Your task to perform on an android device: star an email in the gmail app Image 0: 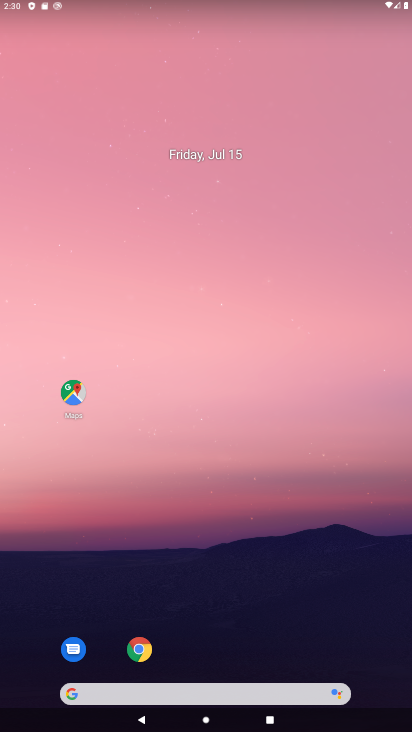
Step 0: drag from (236, 526) to (236, 139)
Your task to perform on an android device: star an email in the gmail app Image 1: 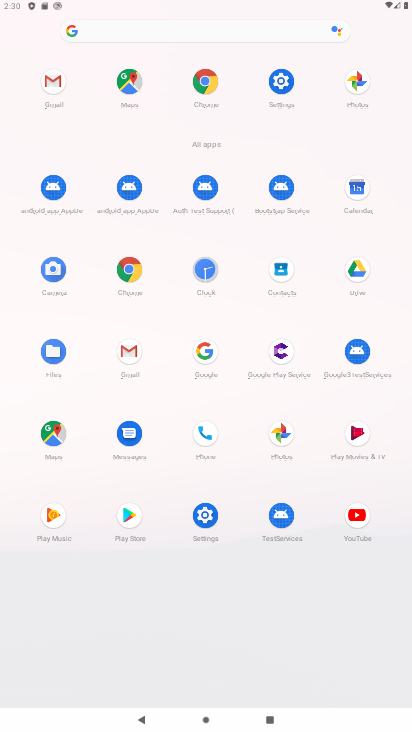
Step 1: click (137, 352)
Your task to perform on an android device: star an email in the gmail app Image 2: 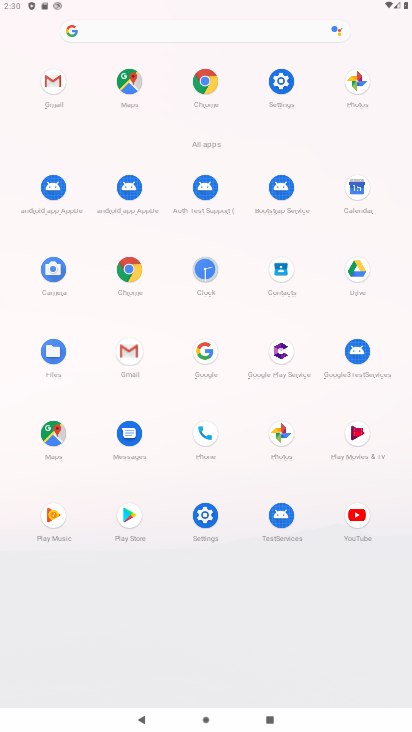
Step 2: click (137, 352)
Your task to perform on an android device: star an email in the gmail app Image 3: 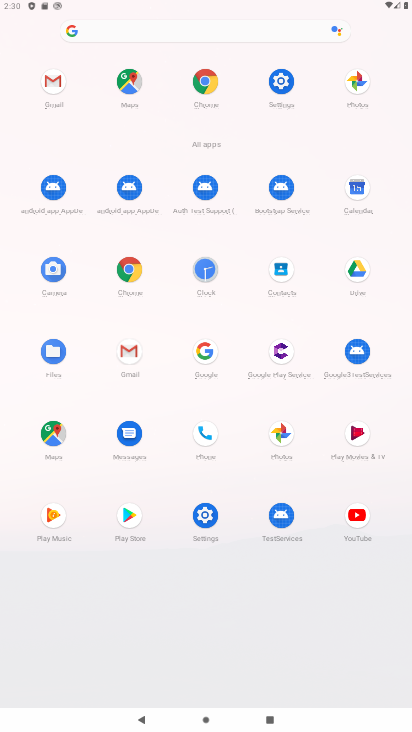
Step 3: click (139, 353)
Your task to perform on an android device: star an email in the gmail app Image 4: 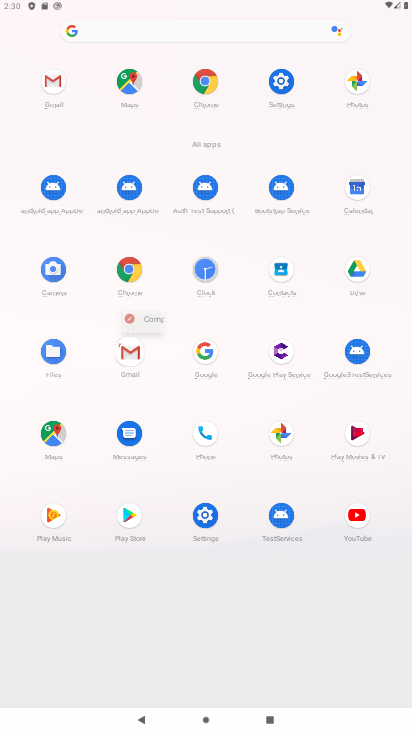
Step 4: click (137, 351)
Your task to perform on an android device: star an email in the gmail app Image 5: 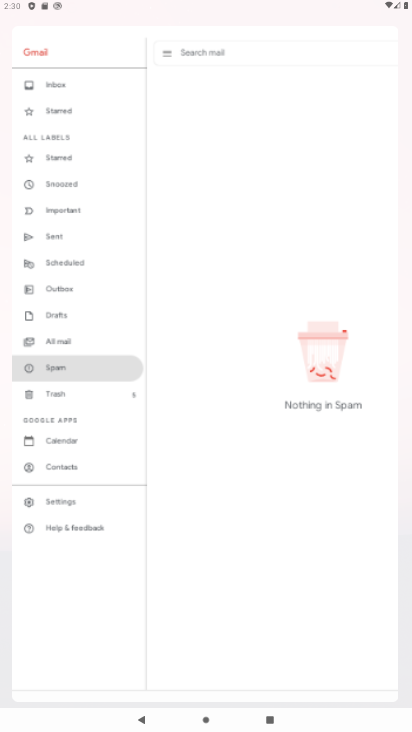
Step 5: click (131, 355)
Your task to perform on an android device: star an email in the gmail app Image 6: 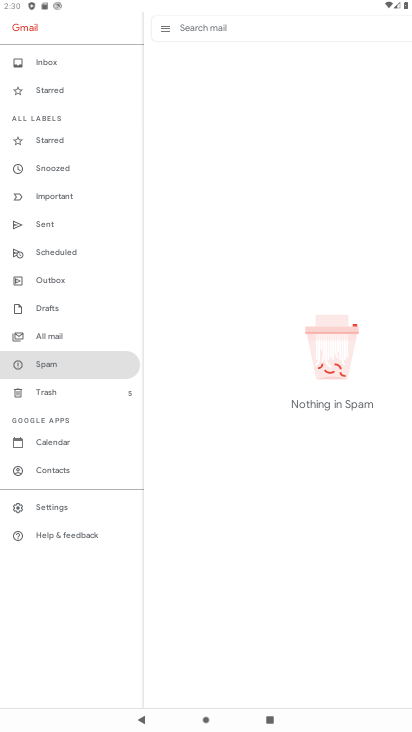
Step 6: click (134, 353)
Your task to perform on an android device: star an email in the gmail app Image 7: 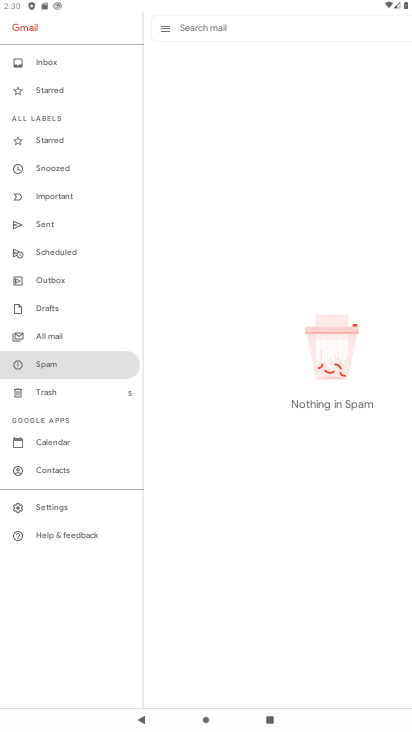
Step 7: click (63, 336)
Your task to perform on an android device: star an email in the gmail app Image 8: 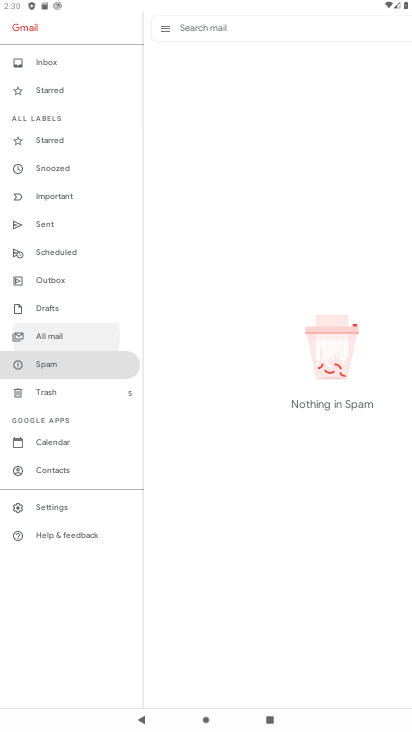
Step 8: click (63, 336)
Your task to perform on an android device: star an email in the gmail app Image 9: 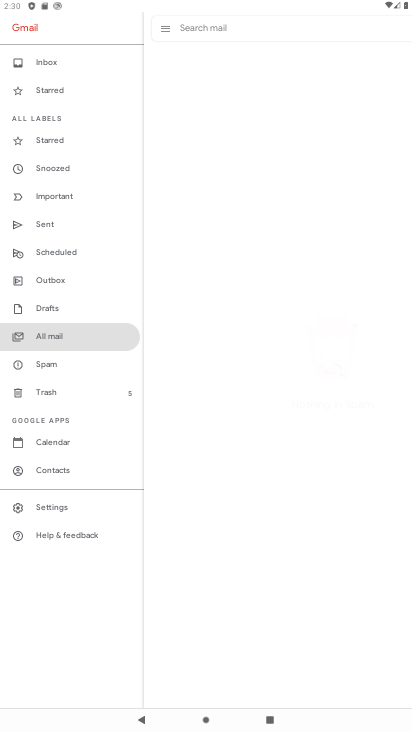
Step 9: click (63, 336)
Your task to perform on an android device: star an email in the gmail app Image 10: 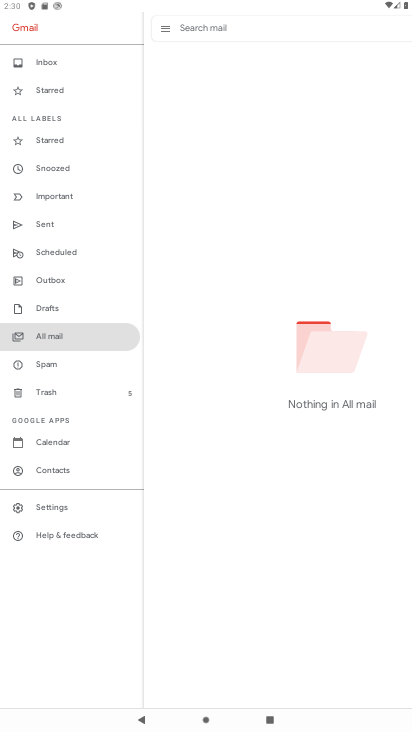
Step 10: task complete